Your task to perform on an android device: empty trash in the gmail app Image 0: 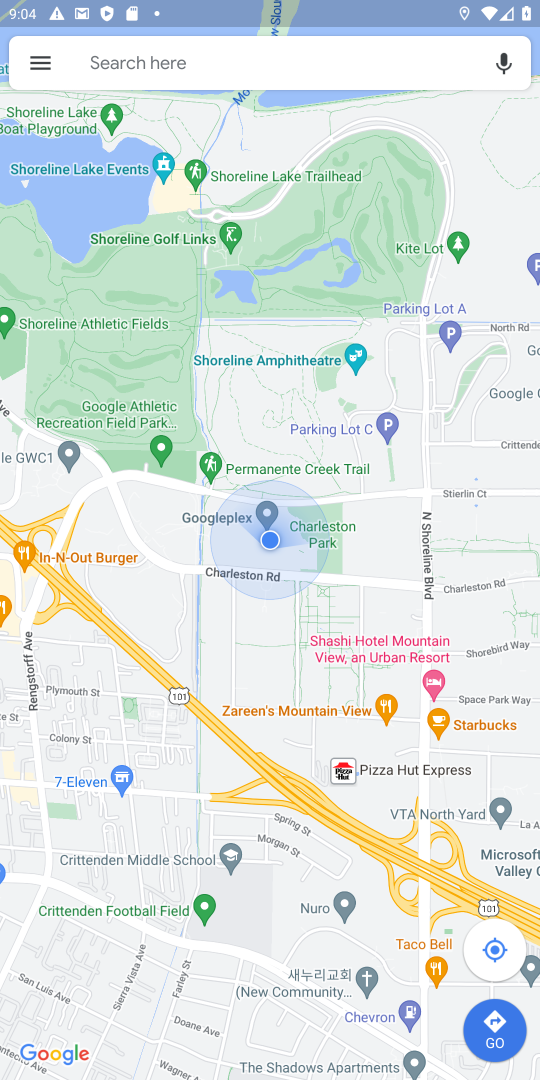
Step 0: press home button
Your task to perform on an android device: empty trash in the gmail app Image 1: 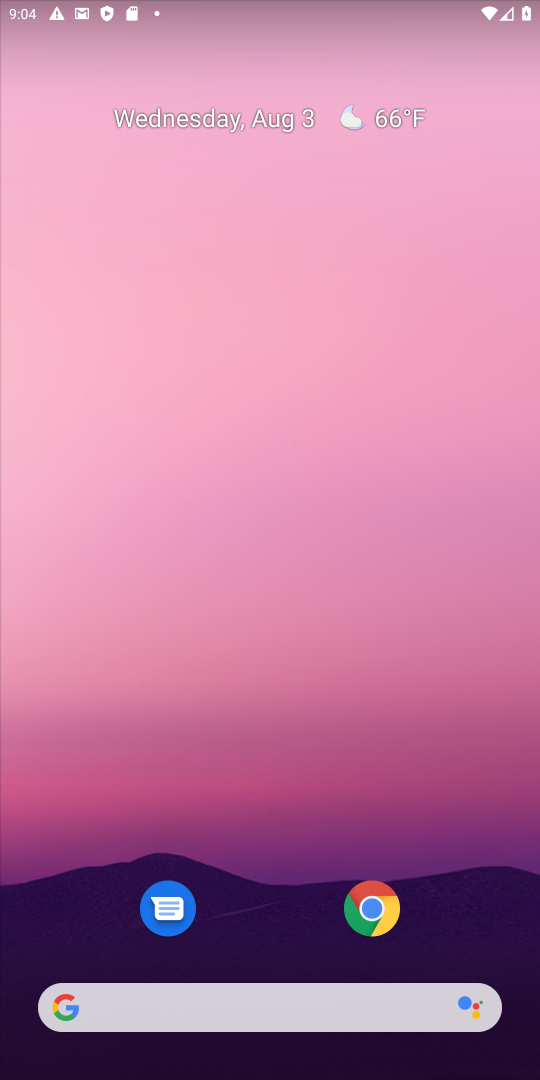
Step 1: drag from (225, 992) to (230, 4)
Your task to perform on an android device: empty trash in the gmail app Image 2: 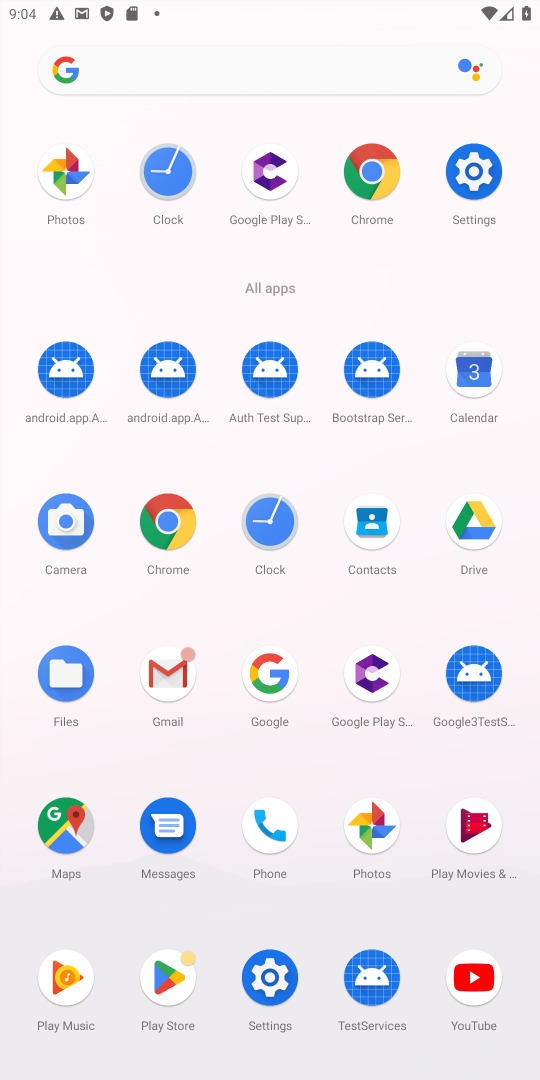
Step 2: click (169, 683)
Your task to perform on an android device: empty trash in the gmail app Image 3: 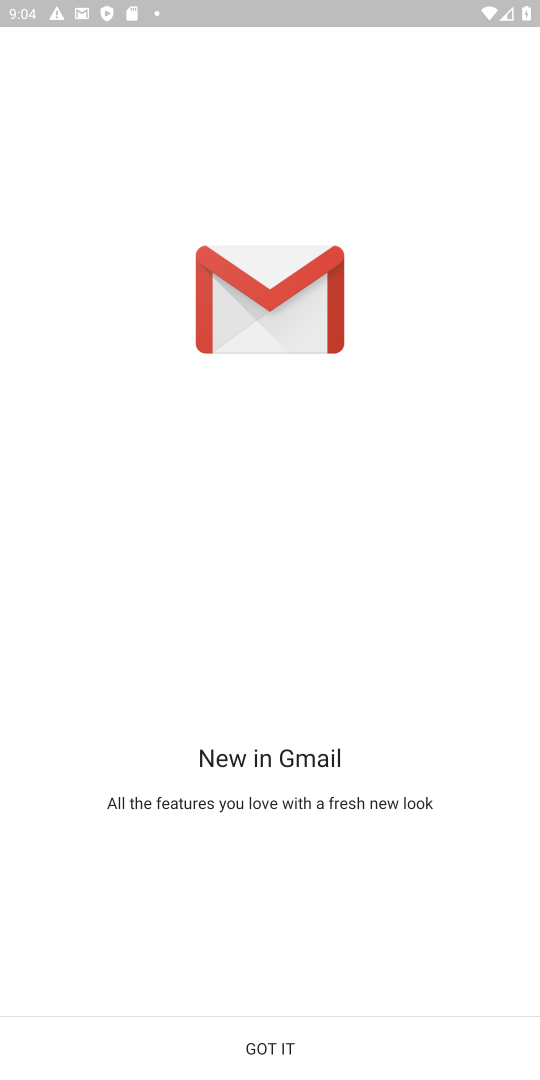
Step 3: click (299, 1060)
Your task to perform on an android device: empty trash in the gmail app Image 4: 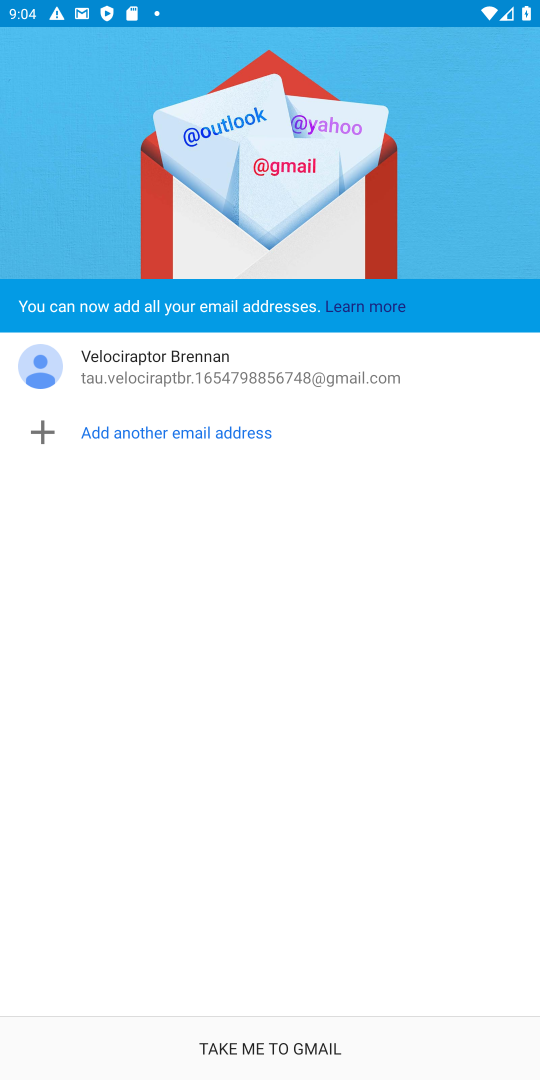
Step 4: click (299, 1060)
Your task to perform on an android device: empty trash in the gmail app Image 5: 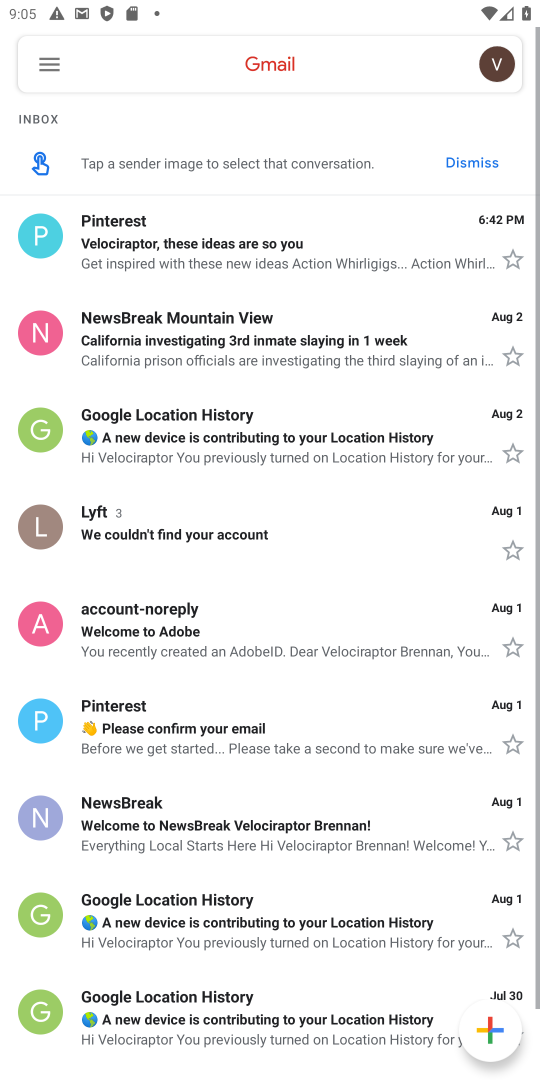
Step 5: click (47, 53)
Your task to perform on an android device: empty trash in the gmail app Image 6: 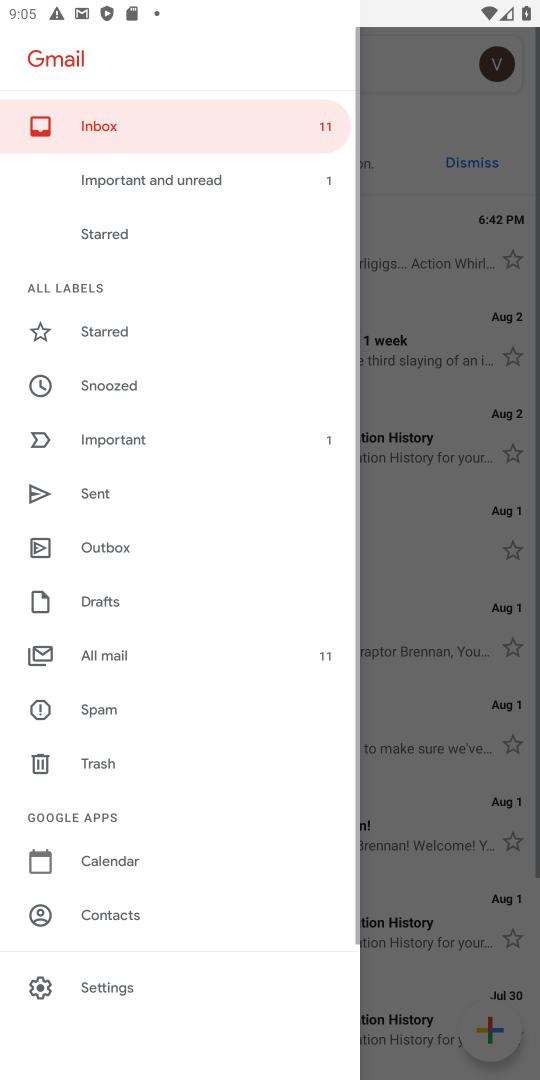
Step 6: click (105, 764)
Your task to perform on an android device: empty trash in the gmail app Image 7: 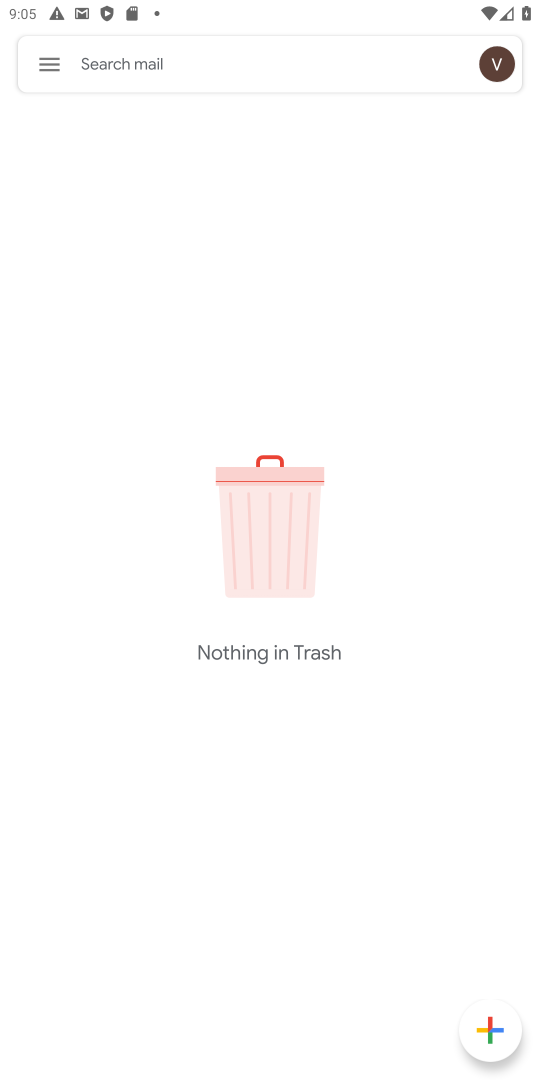
Step 7: task complete